Your task to perform on an android device: add a label to a message in the gmail app Image 0: 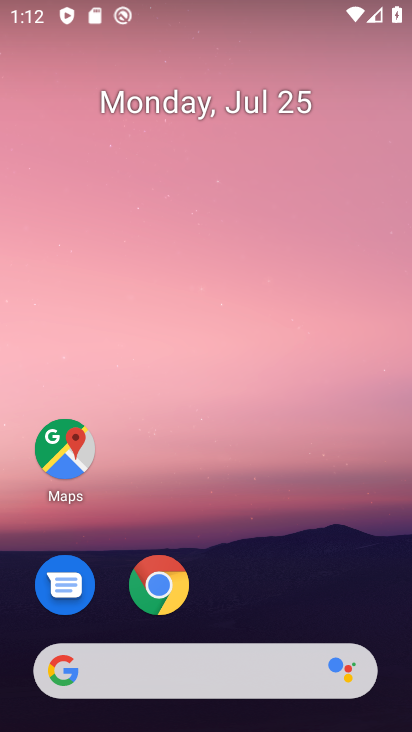
Step 0: drag from (209, 668) to (197, 4)
Your task to perform on an android device: add a label to a message in the gmail app Image 1: 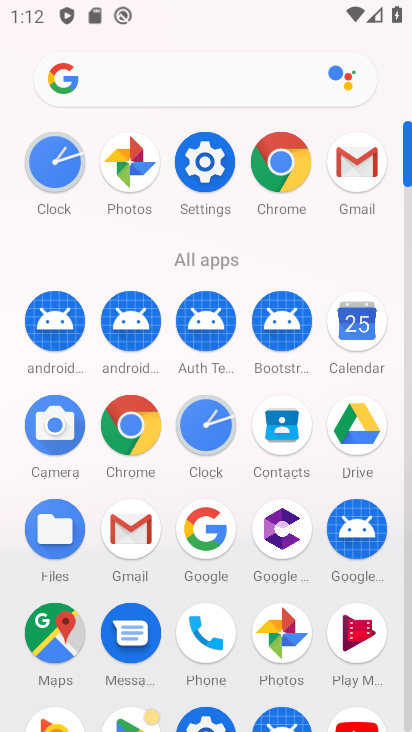
Step 1: click (116, 528)
Your task to perform on an android device: add a label to a message in the gmail app Image 2: 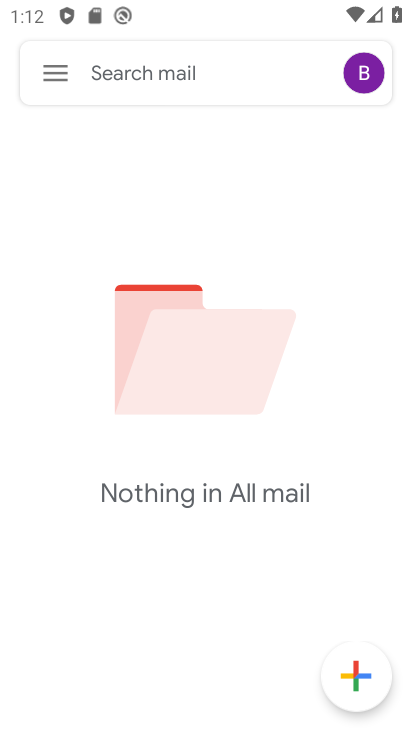
Step 2: task complete